Your task to perform on an android device: open app "Airtel Thanks" Image 0: 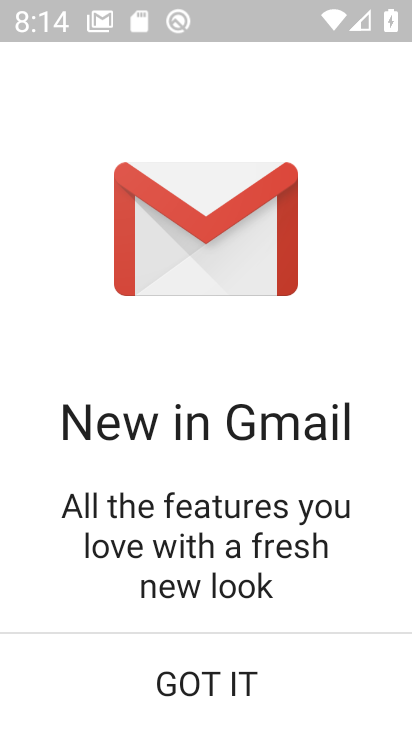
Step 0: press home button
Your task to perform on an android device: open app "Airtel Thanks" Image 1: 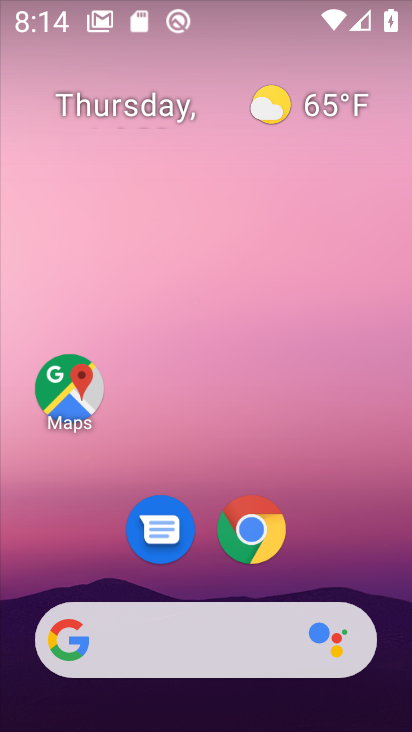
Step 1: drag from (206, 726) to (227, 78)
Your task to perform on an android device: open app "Airtel Thanks" Image 2: 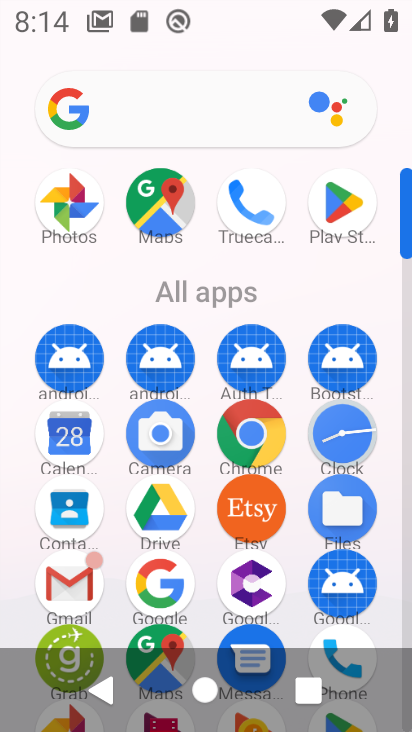
Step 2: drag from (286, 609) to (282, 242)
Your task to perform on an android device: open app "Airtel Thanks" Image 3: 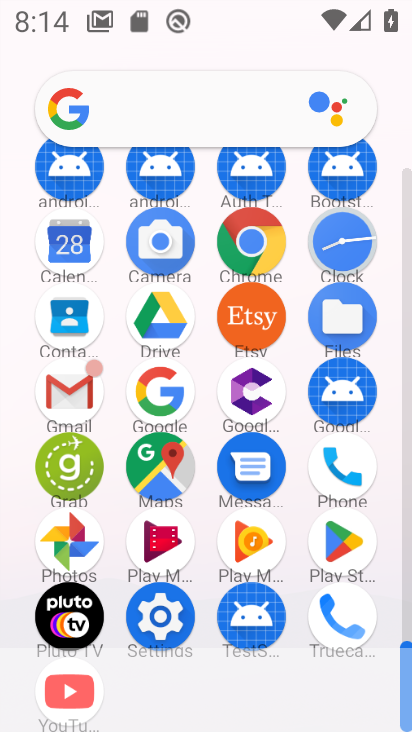
Step 3: click (352, 537)
Your task to perform on an android device: open app "Airtel Thanks" Image 4: 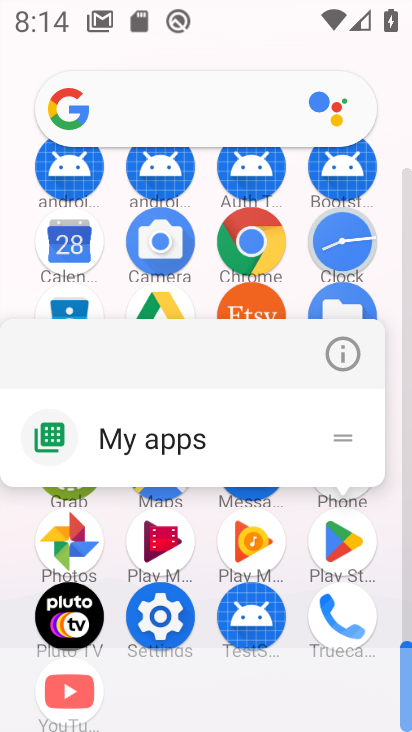
Step 4: click (348, 543)
Your task to perform on an android device: open app "Airtel Thanks" Image 5: 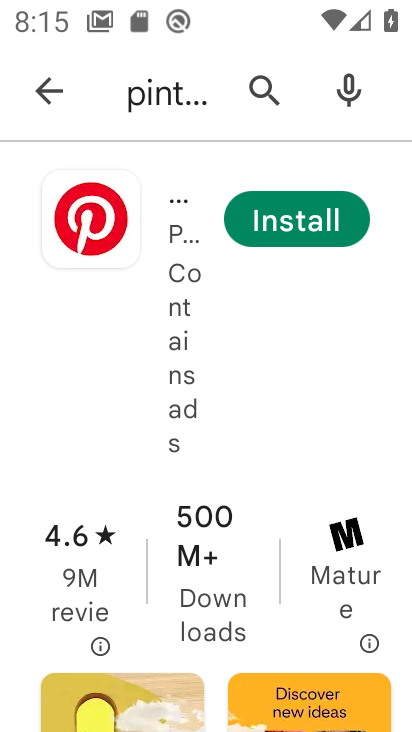
Step 5: click (264, 73)
Your task to perform on an android device: open app "Airtel Thanks" Image 6: 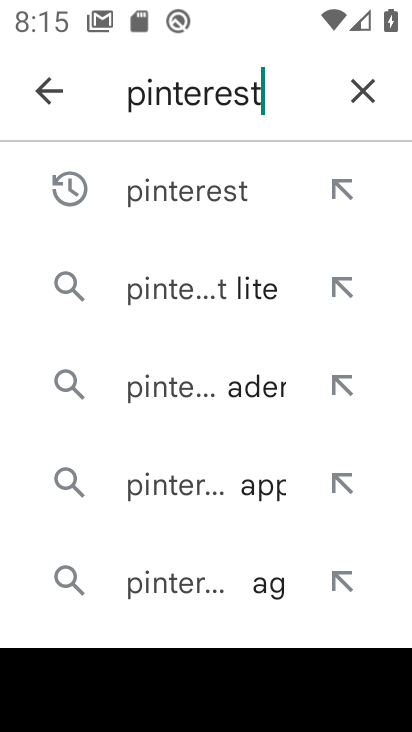
Step 6: click (362, 84)
Your task to perform on an android device: open app "Airtel Thanks" Image 7: 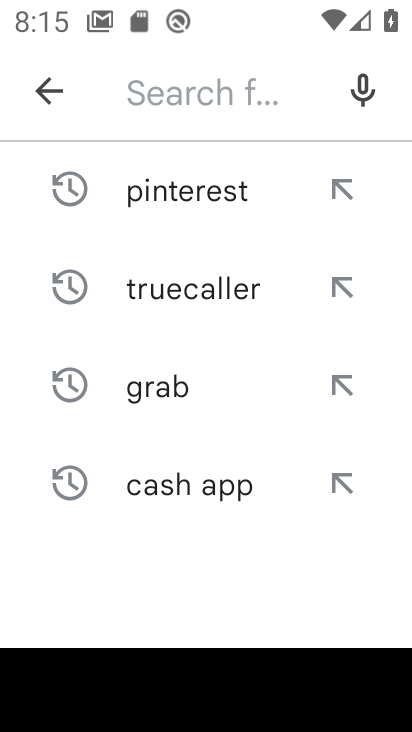
Step 7: type "Airtel Thanks"
Your task to perform on an android device: open app "Airtel Thanks" Image 8: 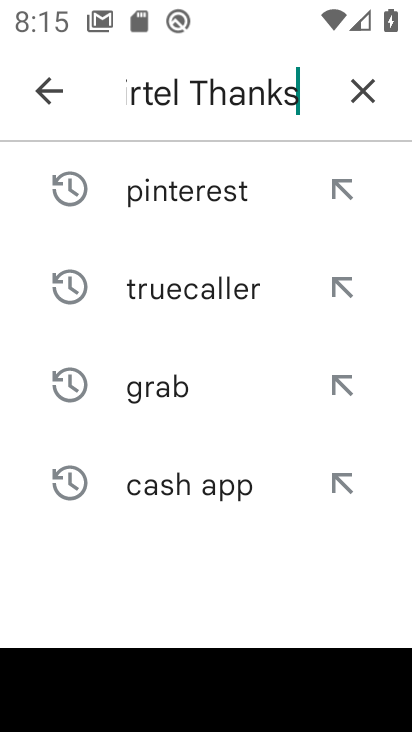
Step 8: type ""
Your task to perform on an android device: open app "Airtel Thanks" Image 9: 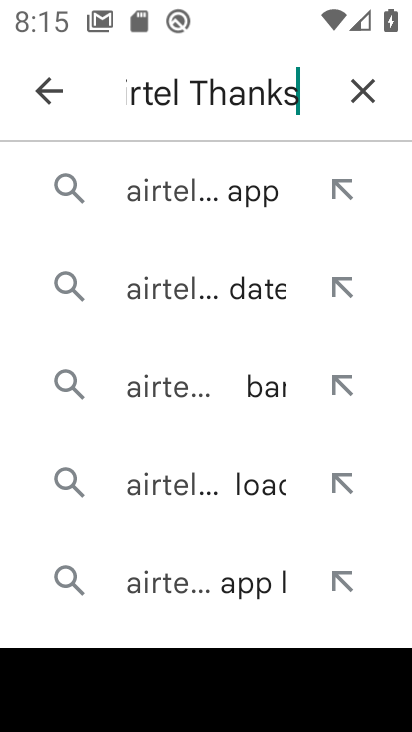
Step 9: click (184, 192)
Your task to perform on an android device: open app "Airtel Thanks" Image 10: 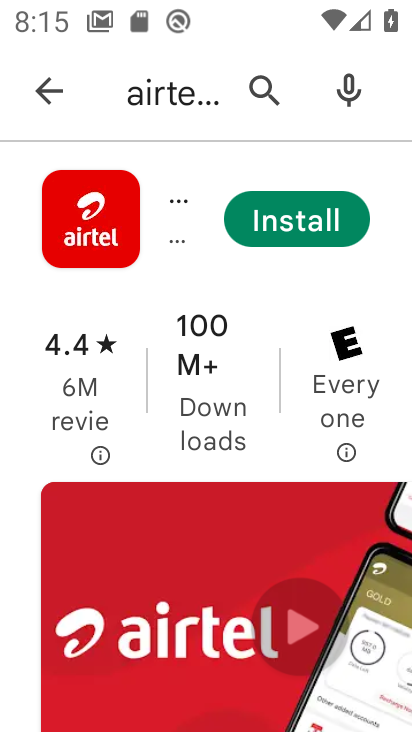
Step 10: task complete